Your task to perform on an android device: clear all cookies in the chrome app Image 0: 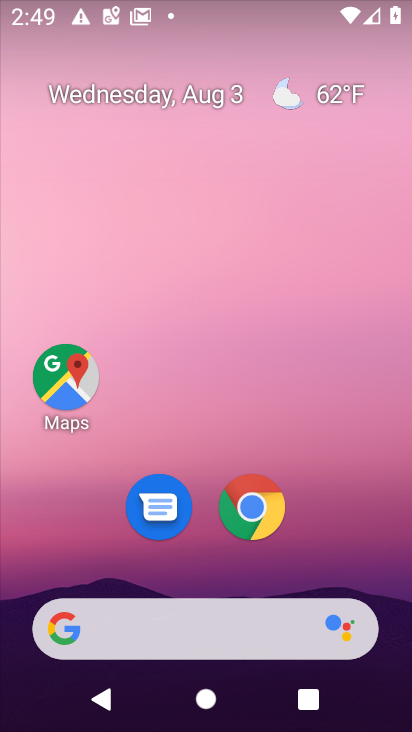
Step 0: click (259, 516)
Your task to perform on an android device: clear all cookies in the chrome app Image 1: 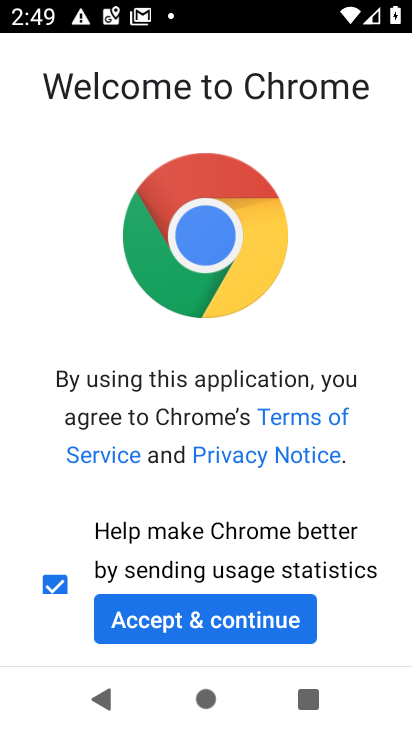
Step 1: click (200, 615)
Your task to perform on an android device: clear all cookies in the chrome app Image 2: 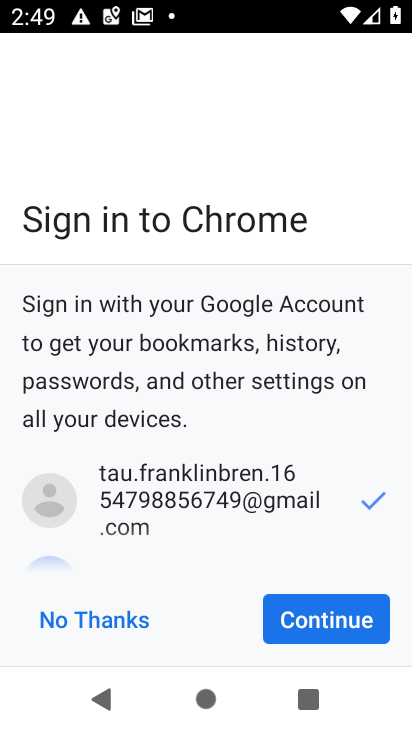
Step 2: click (324, 615)
Your task to perform on an android device: clear all cookies in the chrome app Image 3: 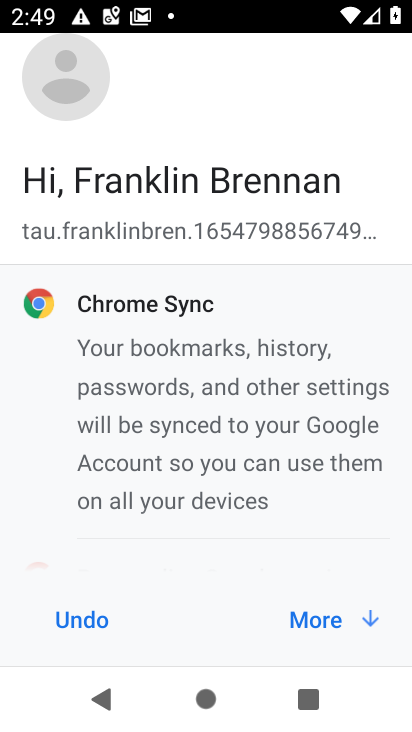
Step 3: click (324, 615)
Your task to perform on an android device: clear all cookies in the chrome app Image 4: 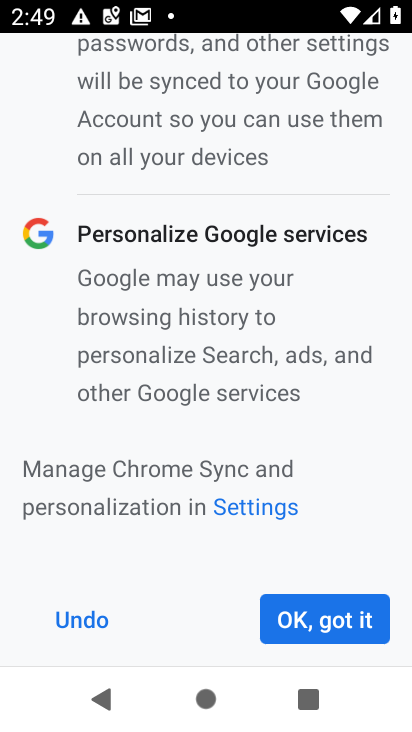
Step 4: click (324, 615)
Your task to perform on an android device: clear all cookies in the chrome app Image 5: 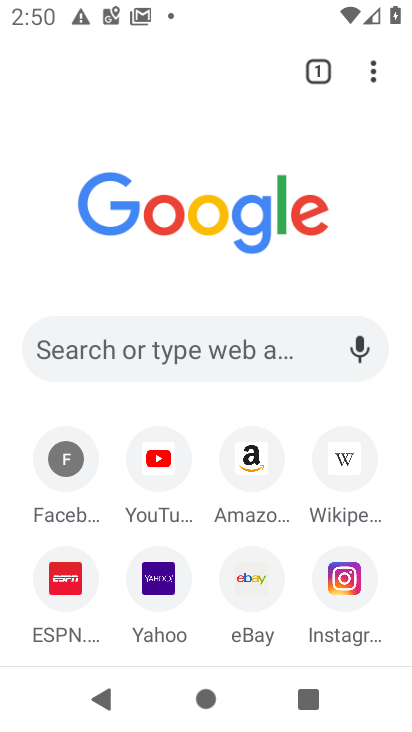
Step 5: click (375, 73)
Your task to perform on an android device: clear all cookies in the chrome app Image 6: 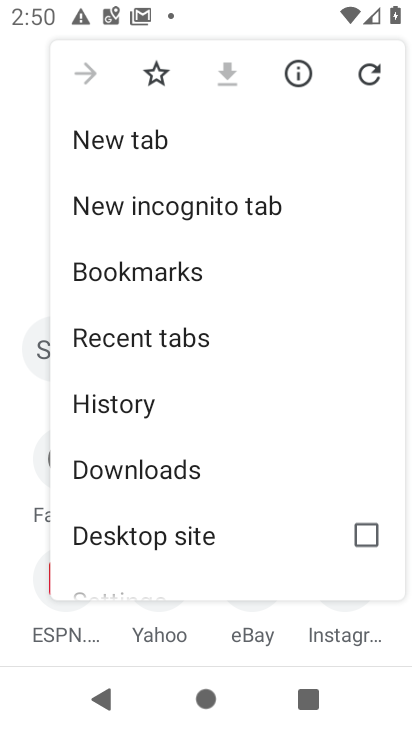
Step 6: drag from (144, 541) to (140, 233)
Your task to perform on an android device: clear all cookies in the chrome app Image 7: 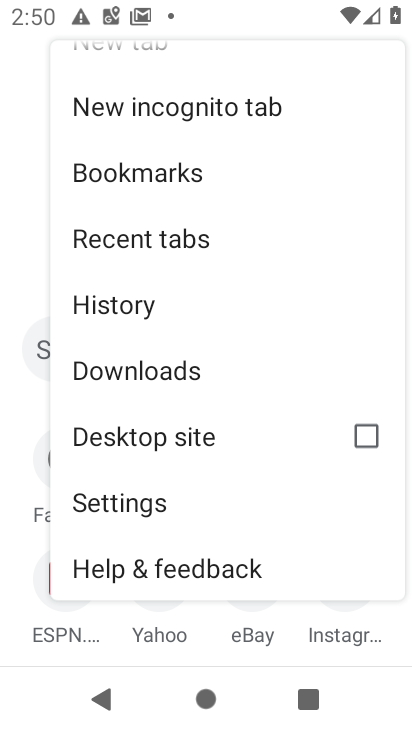
Step 7: click (155, 512)
Your task to perform on an android device: clear all cookies in the chrome app Image 8: 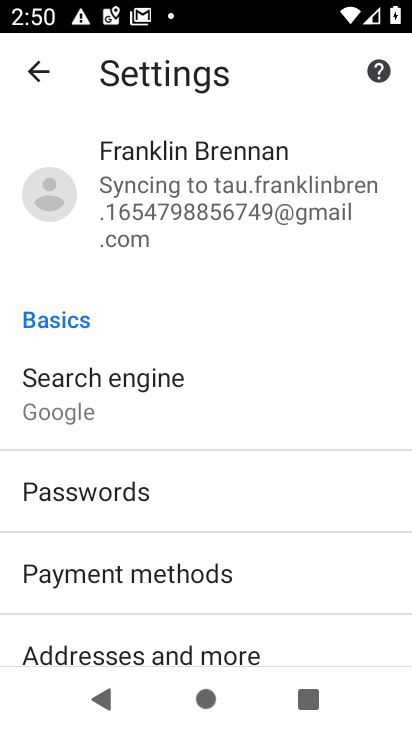
Step 8: drag from (243, 410) to (227, 140)
Your task to perform on an android device: clear all cookies in the chrome app Image 9: 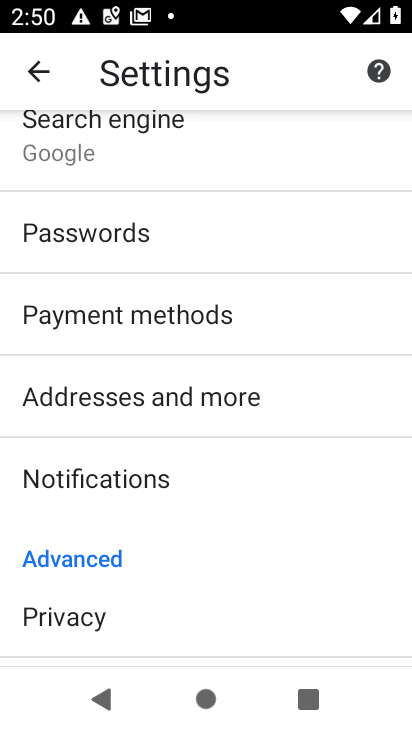
Step 9: drag from (184, 589) to (162, 274)
Your task to perform on an android device: clear all cookies in the chrome app Image 10: 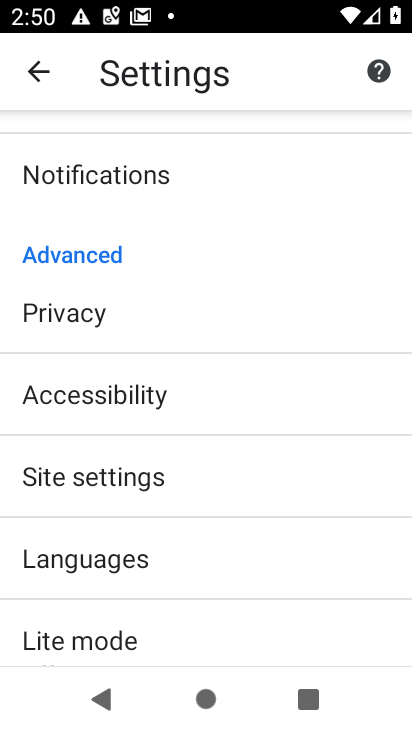
Step 10: click (92, 464)
Your task to perform on an android device: clear all cookies in the chrome app Image 11: 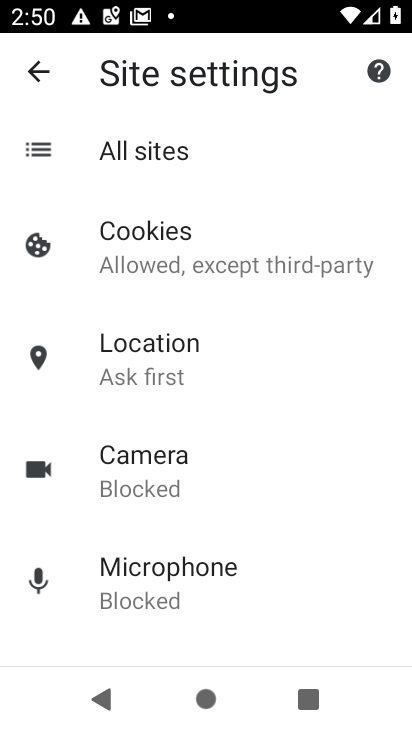
Step 11: click (219, 265)
Your task to perform on an android device: clear all cookies in the chrome app Image 12: 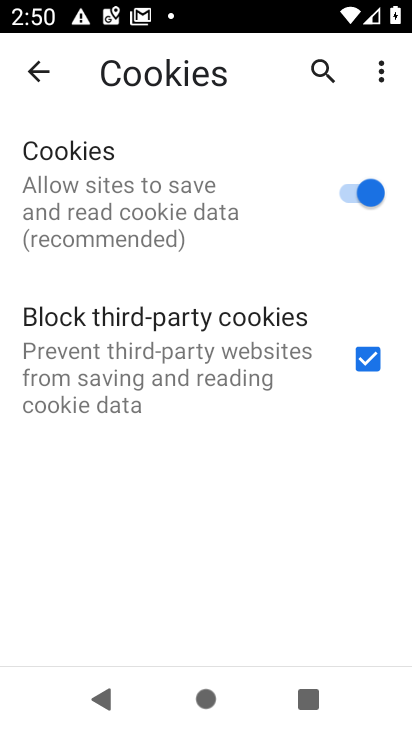
Step 12: task complete